Your task to perform on an android device: allow notifications from all sites in the chrome app Image 0: 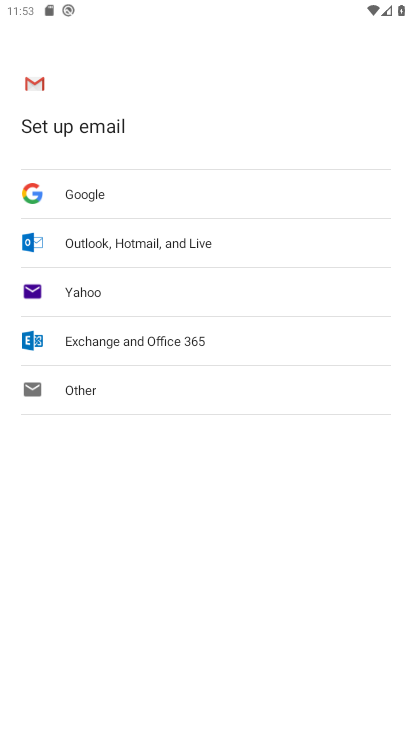
Step 0: press home button
Your task to perform on an android device: allow notifications from all sites in the chrome app Image 1: 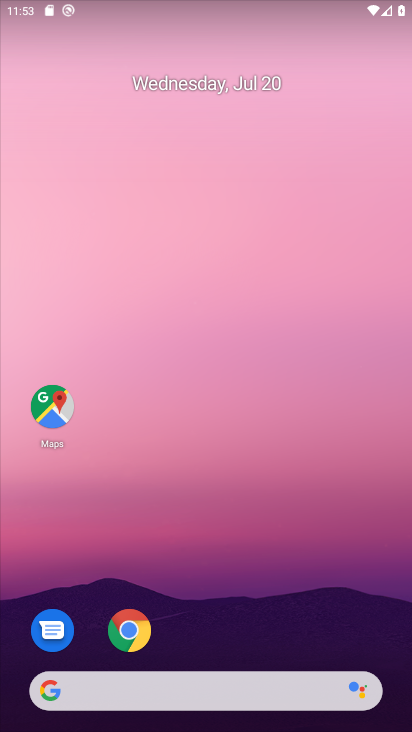
Step 1: drag from (179, 651) to (203, 120)
Your task to perform on an android device: allow notifications from all sites in the chrome app Image 2: 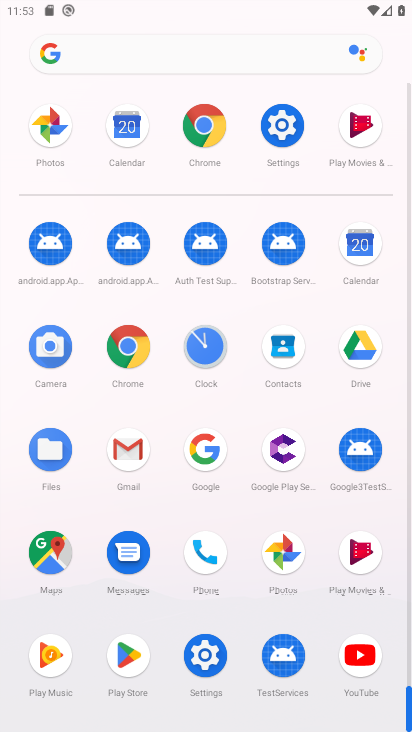
Step 2: click (122, 346)
Your task to perform on an android device: allow notifications from all sites in the chrome app Image 3: 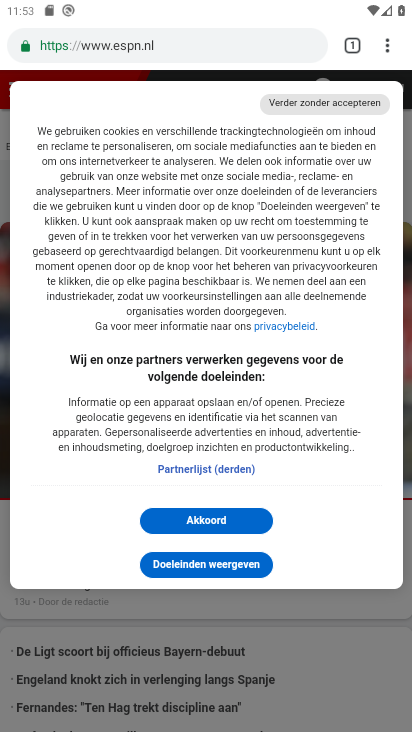
Step 3: drag from (386, 49) to (238, 546)
Your task to perform on an android device: allow notifications from all sites in the chrome app Image 4: 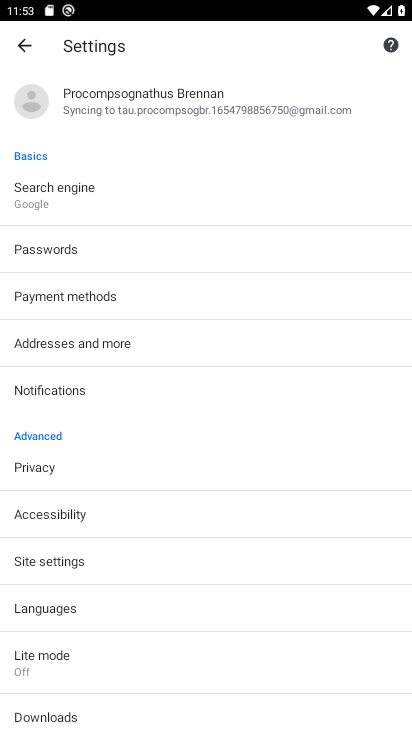
Step 4: click (59, 561)
Your task to perform on an android device: allow notifications from all sites in the chrome app Image 5: 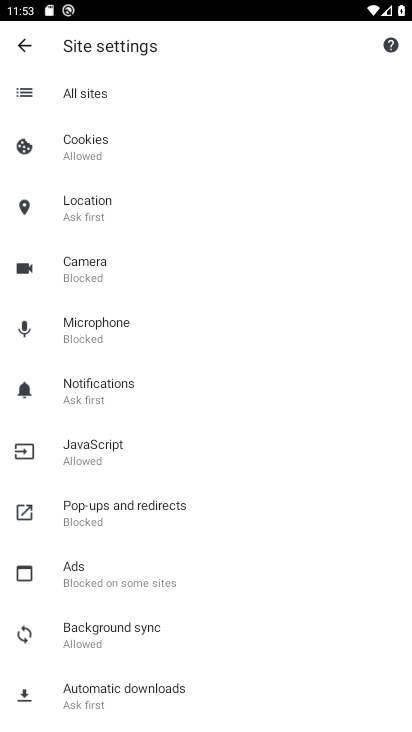
Step 5: click (107, 372)
Your task to perform on an android device: allow notifications from all sites in the chrome app Image 6: 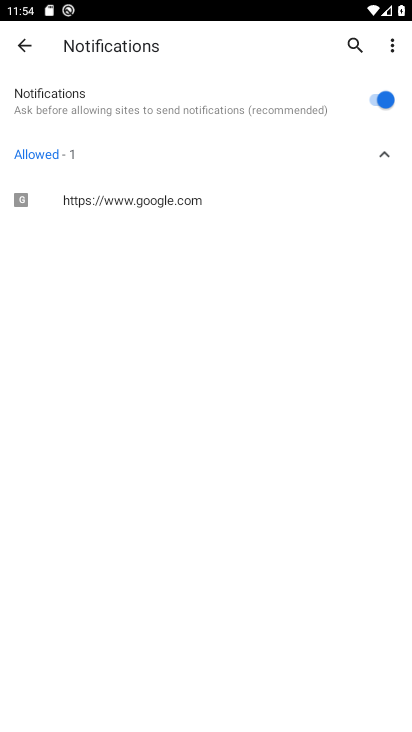
Step 6: task complete